Your task to perform on an android device: turn on location history Image 0: 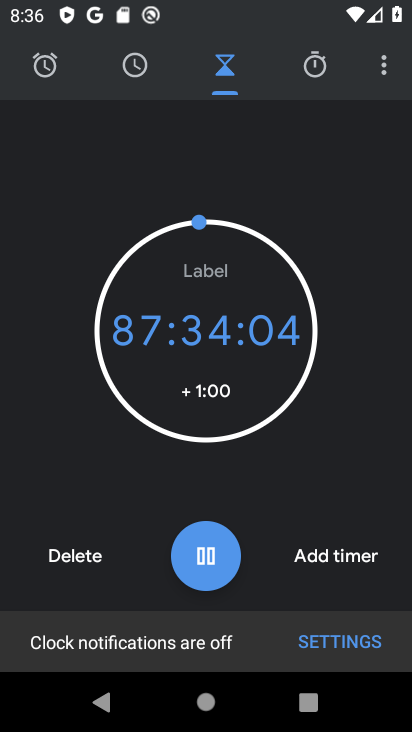
Step 0: press home button
Your task to perform on an android device: turn on location history Image 1: 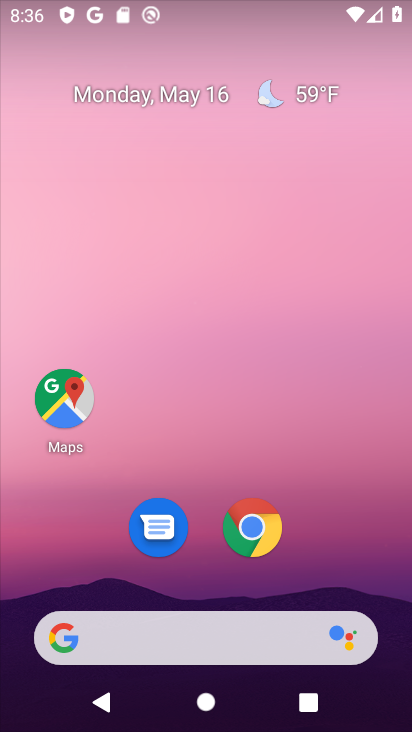
Step 1: drag from (322, 440) to (314, 266)
Your task to perform on an android device: turn on location history Image 2: 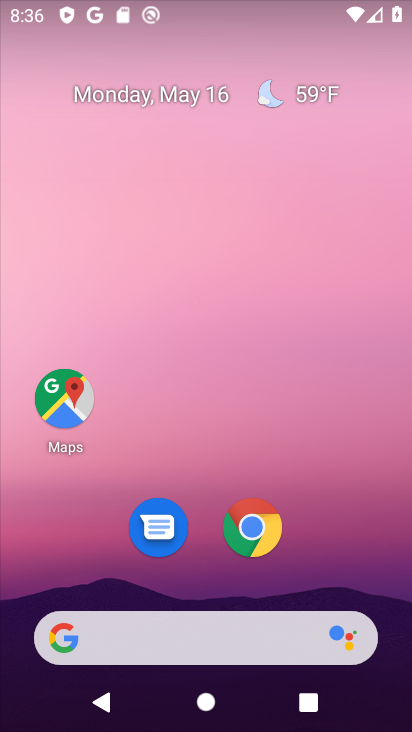
Step 2: drag from (297, 451) to (297, 172)
Your task to perform on an android device: turn on location history Image 3: 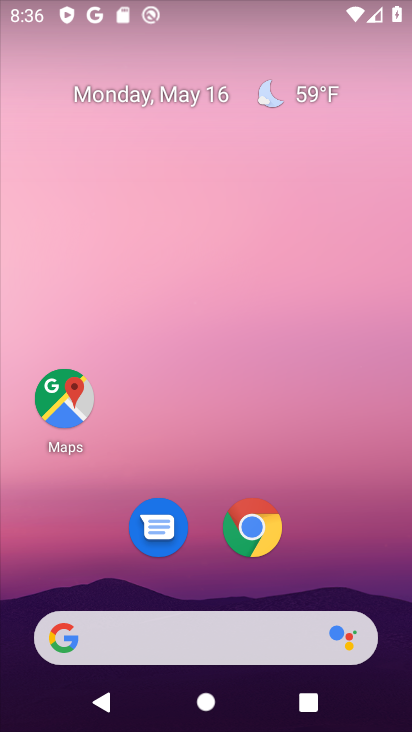
Step 3: drag from (217, 528) to (208, 194)
Your task to perform on an android device: turn on location history Image 4: 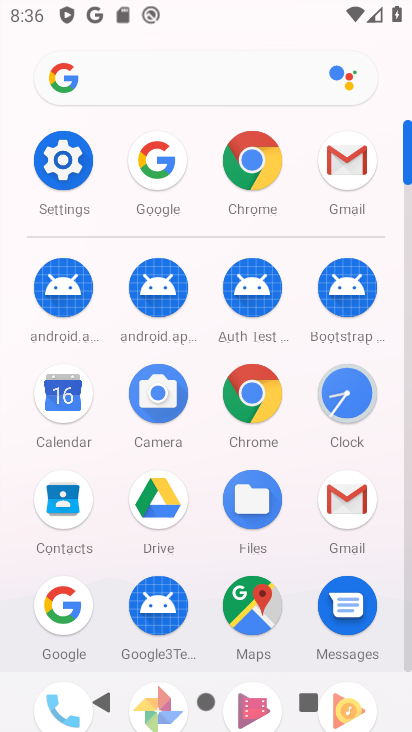
Step 4: click (72, 150)
Your task to perform on an android device: turn on location history Image 5: 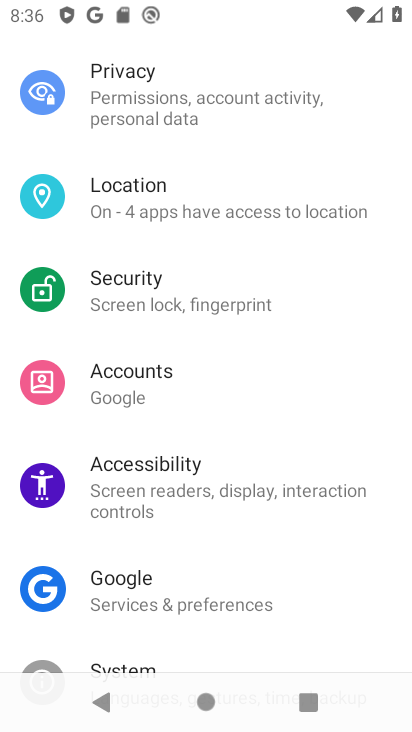
Step 5: click (197, 192)
Your task to perform on an android device: turn on location history Image 6: 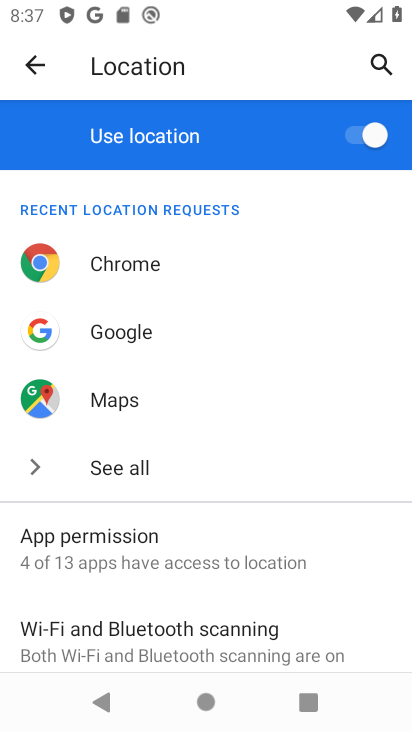
Step 6: drag from (203, 534) to (238, 190)
Your task to perform on an android device: turn on location history Image 7: 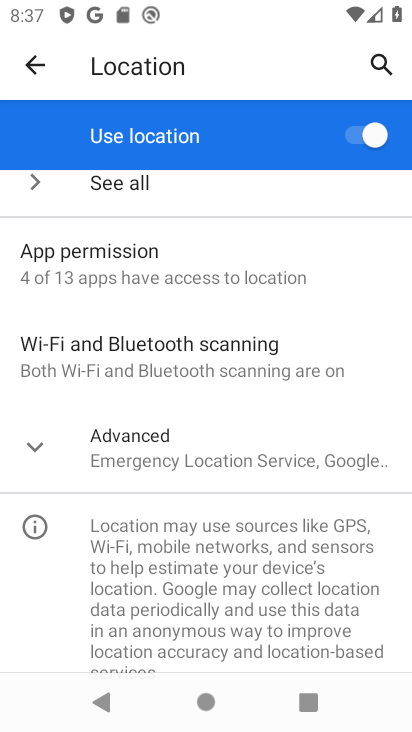
Step 7: click (153, 276)
Your task to perform on an android device: turn on location history Image 8: 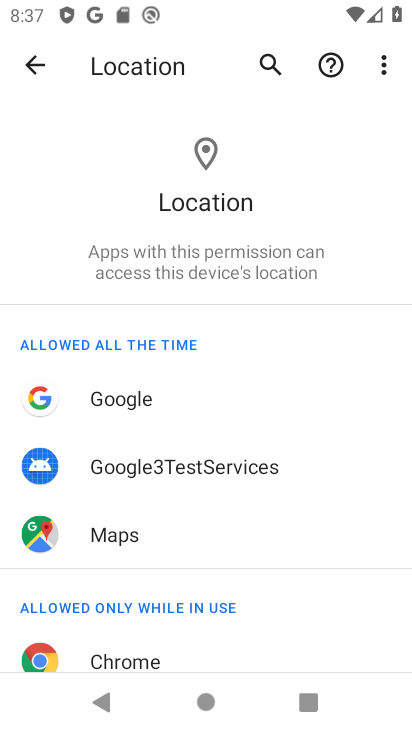
Step 8: click (45, 68)
Your task to perform on an android device: turn on location history Image 9: 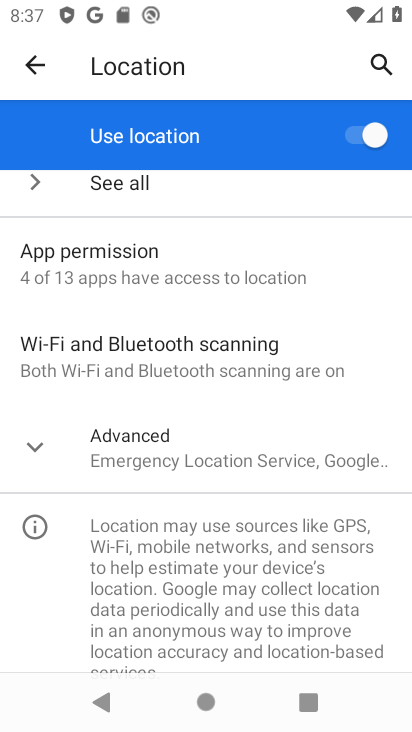
Step 9: click (261, 459)
Your task to perform on an android device: turn on location history Image 10: 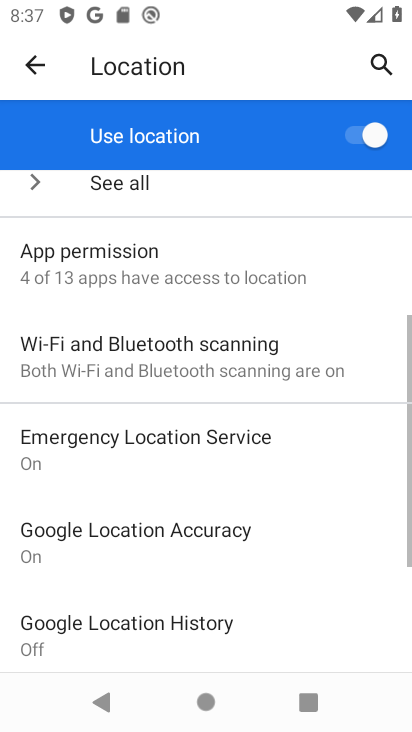
Step 10: drag from (186, 626) to (207, 476)
Your task to perform on an android device: turn on location history Image 11: 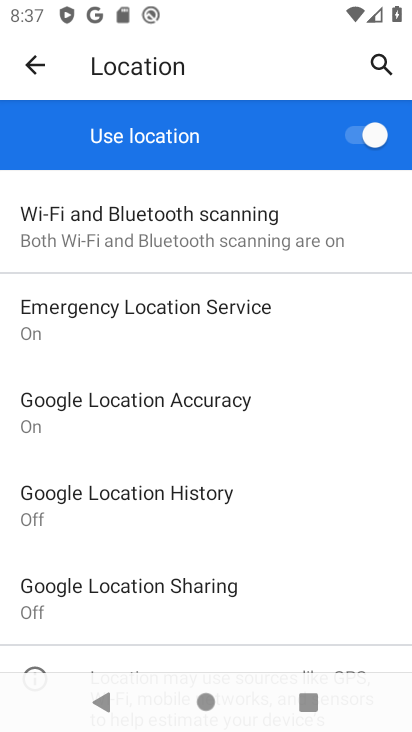
Step 11: click (148, 486)
Your task to perform on an android device: turn on location history Image 12: 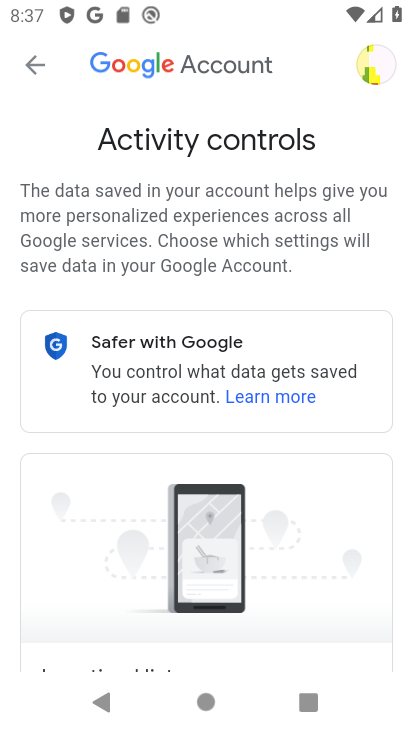
Step 12: drag from (271, 547) to (279, 143)
Your task to perform on an android device: turn on location history Image 13: 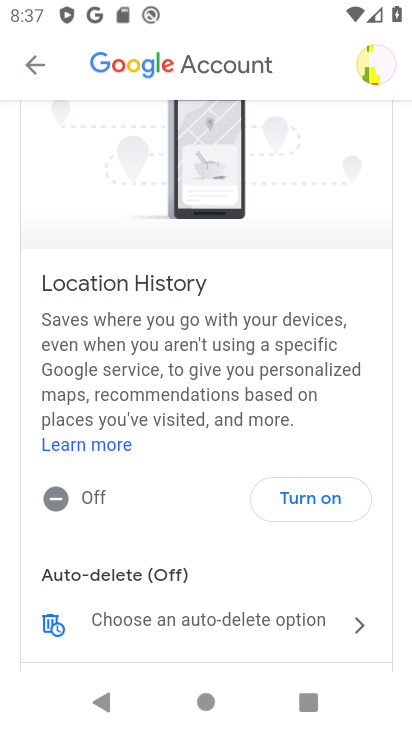
Step 13: click (285, 483)
Your task to perform on an android device: turn on location history Image 14: 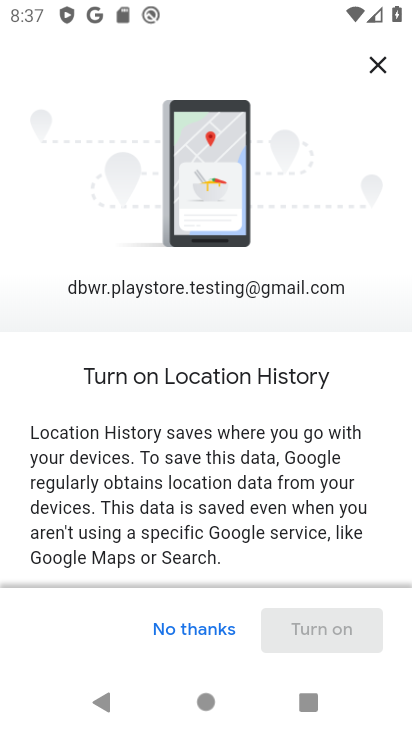
Step 14: click (318, 624)
Your task to perform on an android device: turn on location history Image 15: 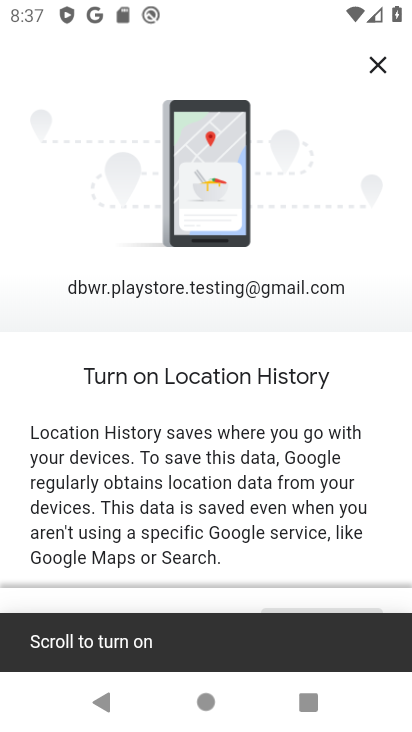
Step 15: click (181, 622)
Your task to perform on an android device: turn on location history Image 16: 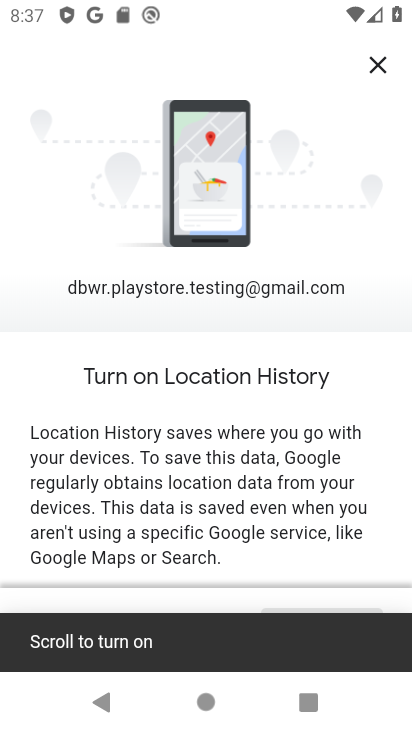
Step 16: task complete